Your task to perform on an android device: check data usage Image 0: 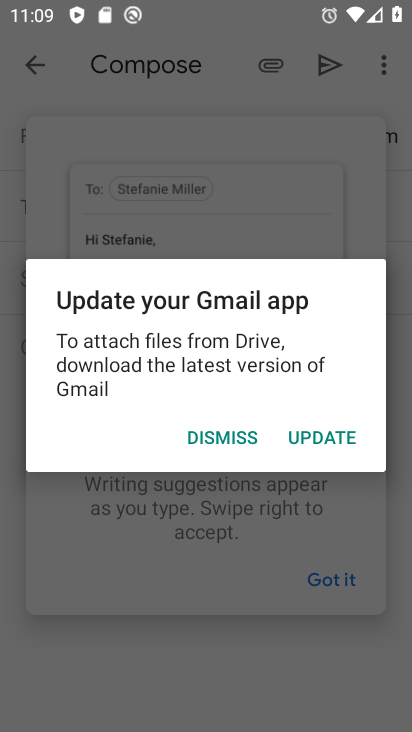
Step 0: press home button
Your task to perform on an android device: check data usage Image 1: 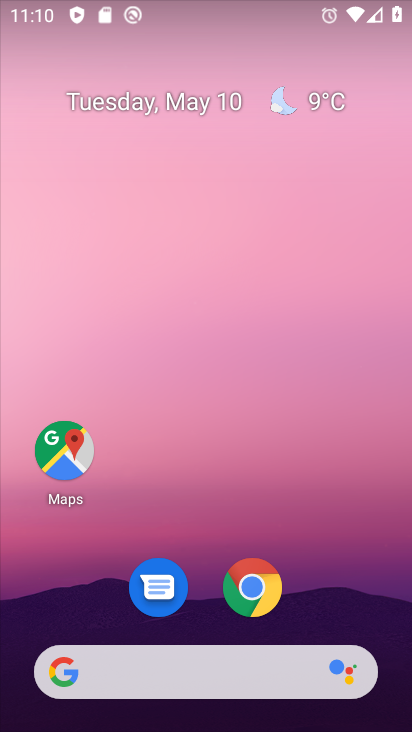
Step 1: drag from (377, 614) to (359, 47)
Your task to perform on an android device: check data usage Image 2: 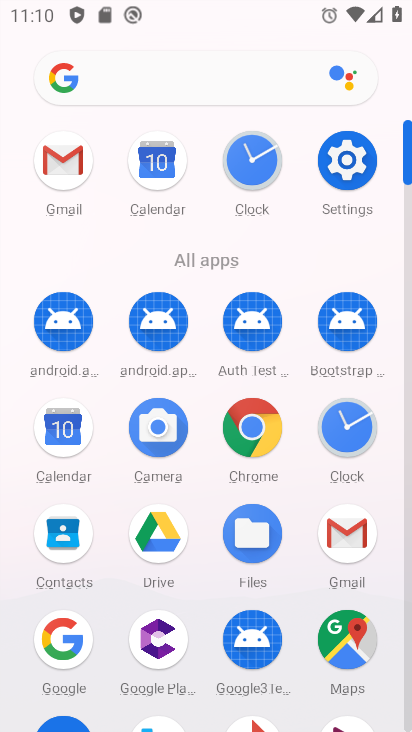
Step 2: click (339, 174)
Your task to perform on an android device: check data usage Image 3: 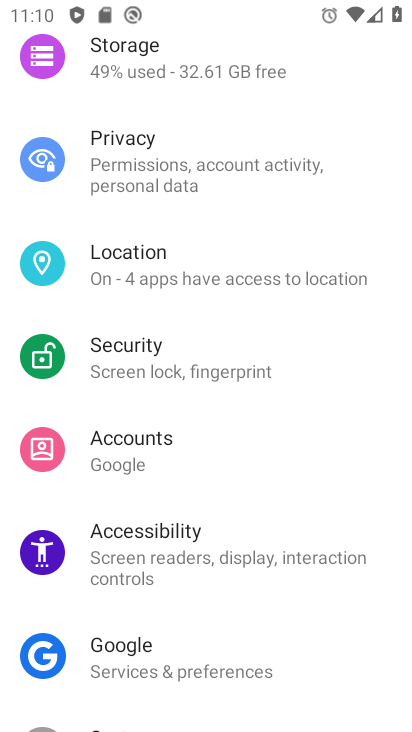
Step 3: drag from (359, 173) to (359, 620)
Your task to perform on an android device: check data usage Image 4: 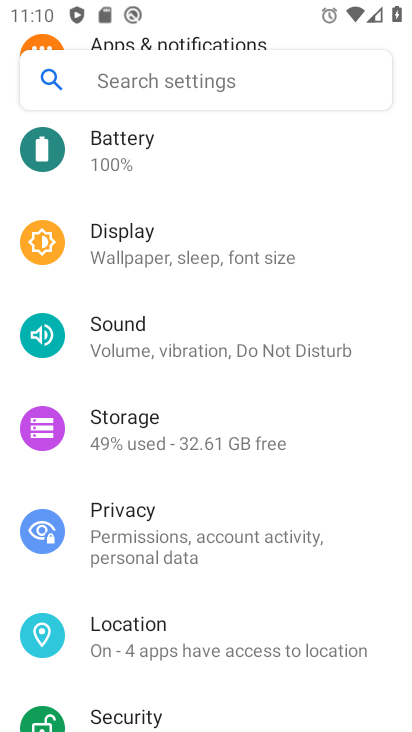
Step 4: drag from (303, 243) to (306, 600)
Your task to perform on an android device: check data usage Image 5: 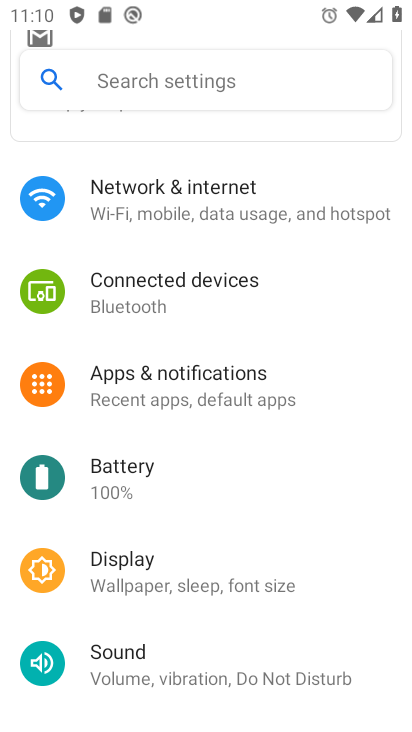
Step 5: click (140, 217)
Your task to perform on an android device: check data usage Image 6: 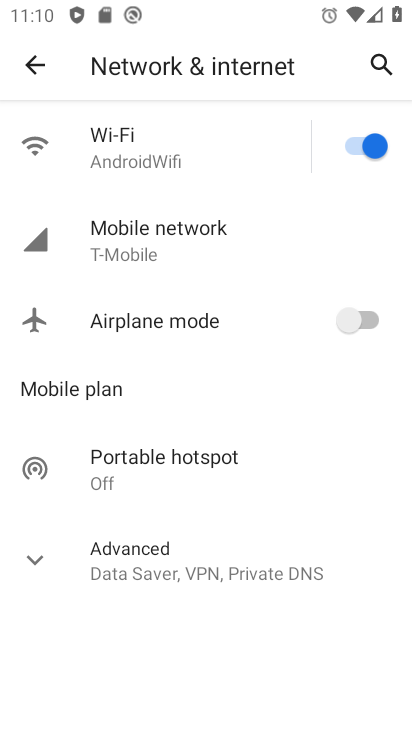
Step 6: click (136, 243)
Your task to perform on an android device: check data usage Image 7: 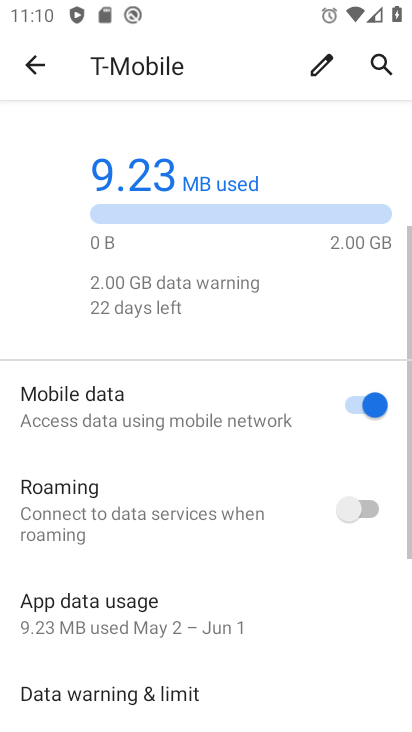
Step 7: drag from (143, 558) to (146, 293)
Your task to perform on an android device: check data usage Image 8: 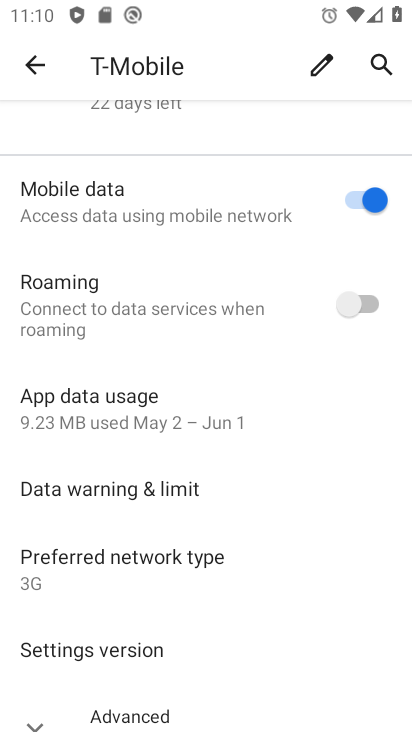
Step 8: click (90, 404)
Your task to perform on an android device: check data usage Image 9: 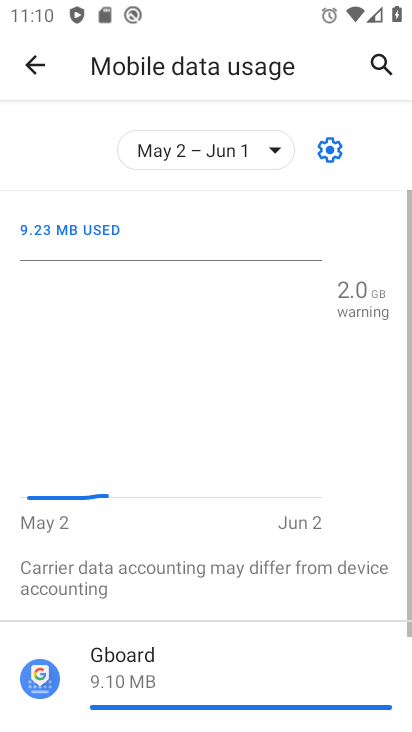
Step 9: task complete